Your task to perform on an android device: Open maps Image 0: 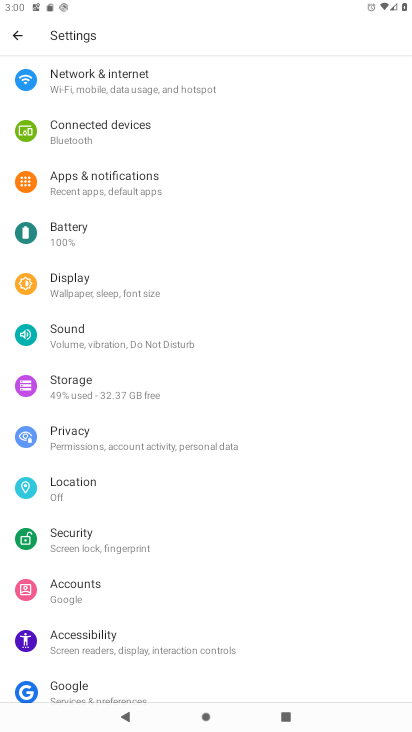
Step 0: press home button
Your task to perform on an android device: Open maps Image 1: 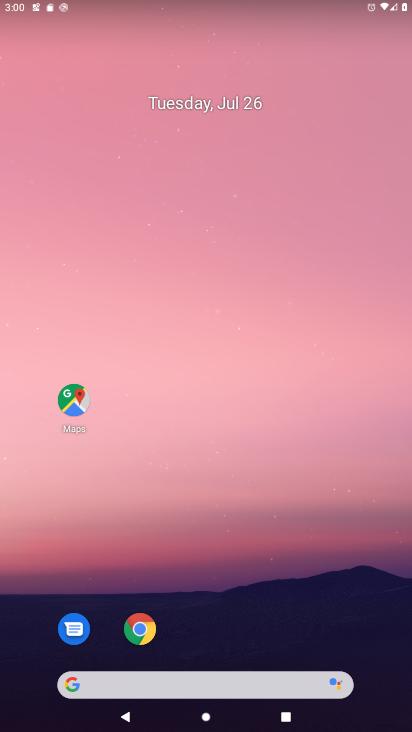
Step 1: click (64, 421)
Your task to perform on an android device: Open maps Image 2: 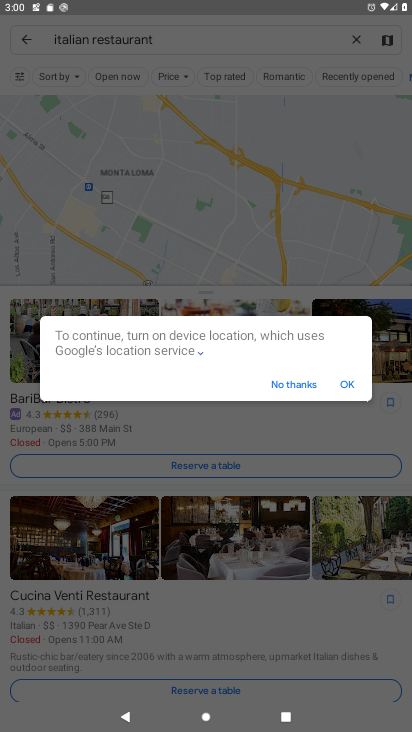
Step 2: task complete